Your task to perform on an android device: open app "YouTube Kids" Image 0: 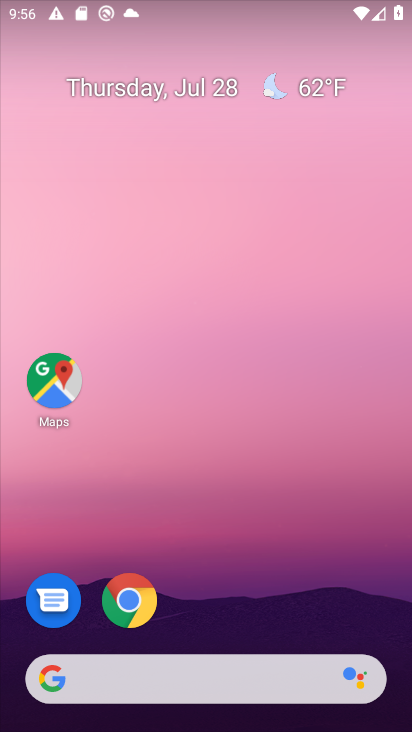
Step 0: drag from (247, 647) to (298, 2)
Your task to perform on an android device: open app "YouTube Kids" Image 1: 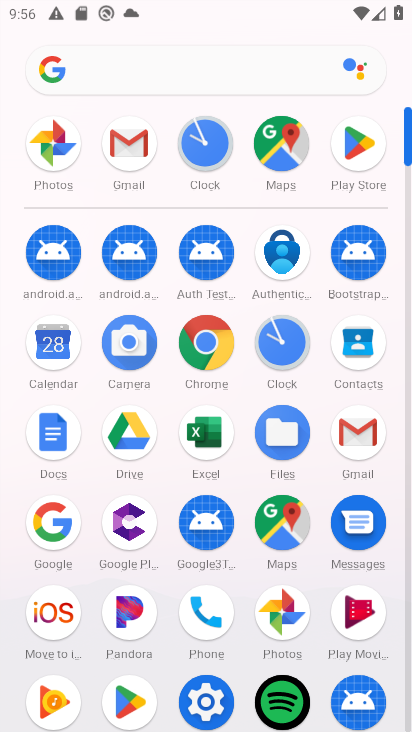
Step 1: click (351, 150)
Your task to perform on an android device: open app "YouTube Kids" Image 2: 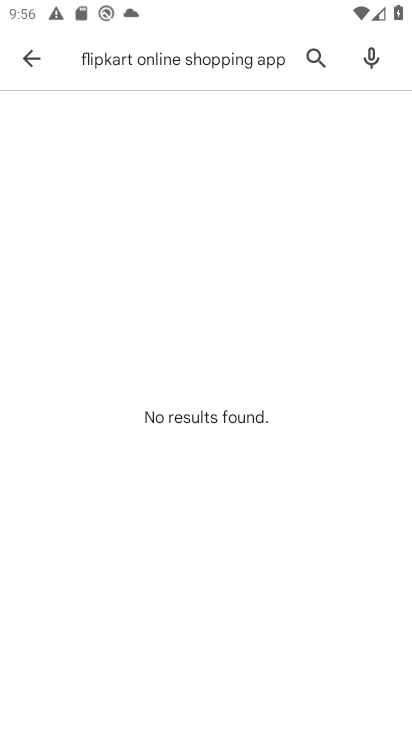
Step 2: click (317, 52)
Your task to perform on an android device: open app "YouTube Kids" Image 3: 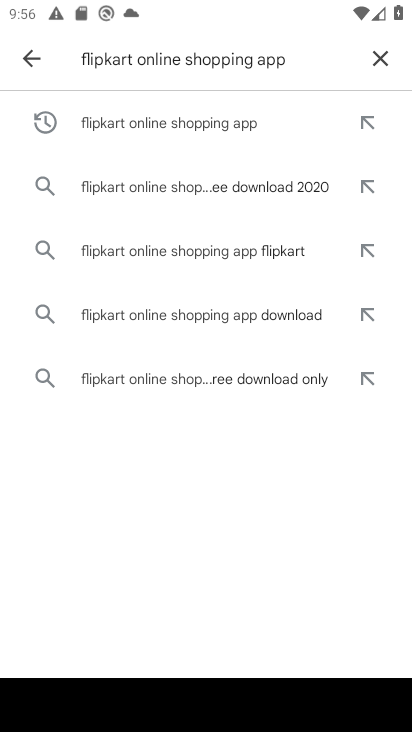
Step 3: click (375, 59)
Your task to perform on an android device: open app "YouTube Kids" Image 4: 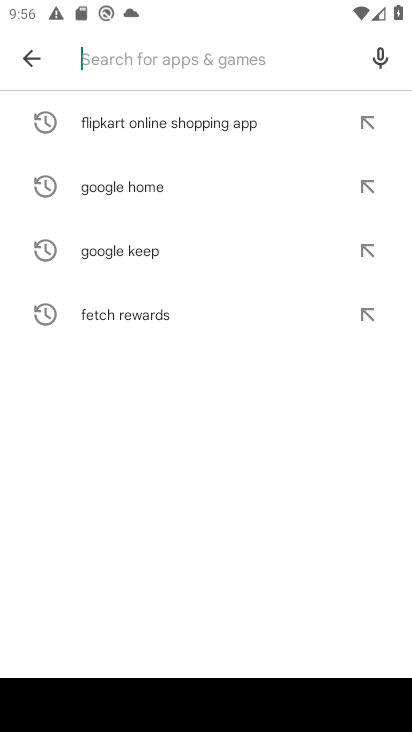
Step 4: click (273, 64)
Your task to perform on an android device: open app "YouTube Kids" Image 5: 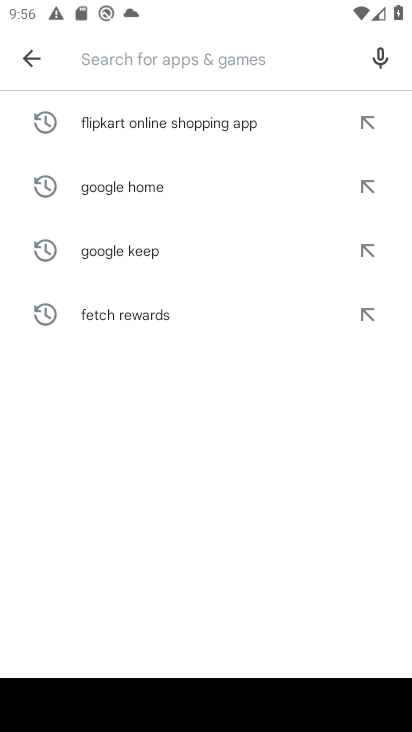
Step 5: type "YouTube Kids"
Your task to perform on an android device: open app "YouTube Kids" Image 6: 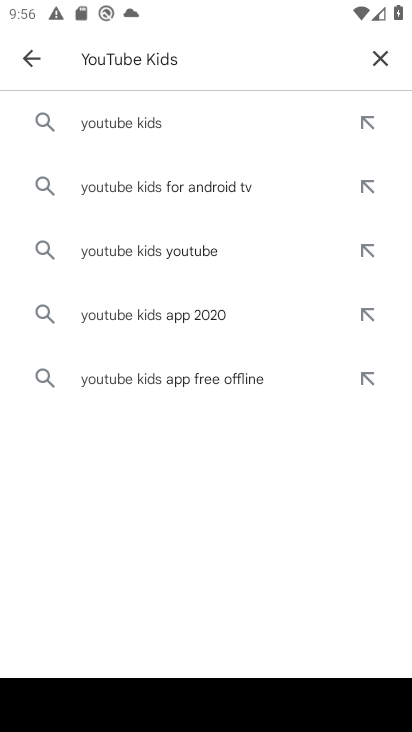
Step 6: click (95, 131)
Your task to perform on an android device: open app "YouTube Kids" Image 7: 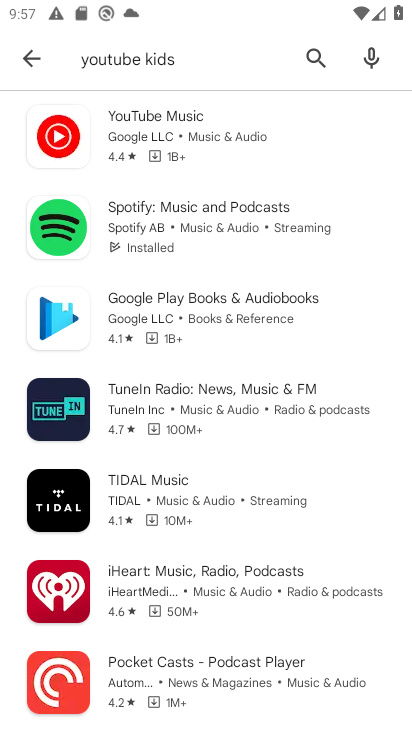
Step 7: task complete